Your task to perform on an android device: turn off smart reply in the gmail app Image 0: 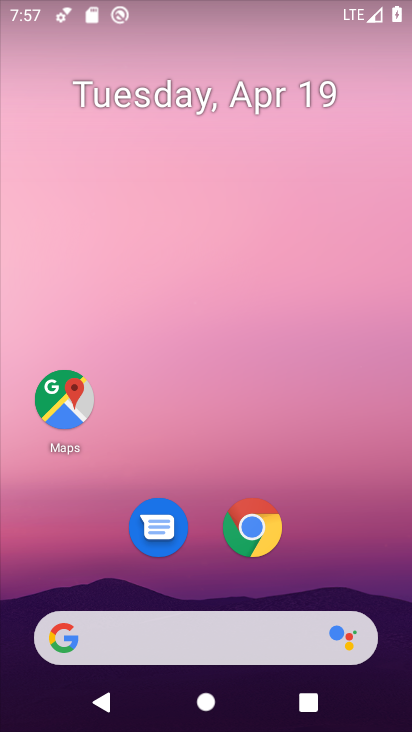
Step 0: drag from (376, 564) to (301, 89)
Your task to perform on an android device: turn off smart reply in the gmail app Image 1: 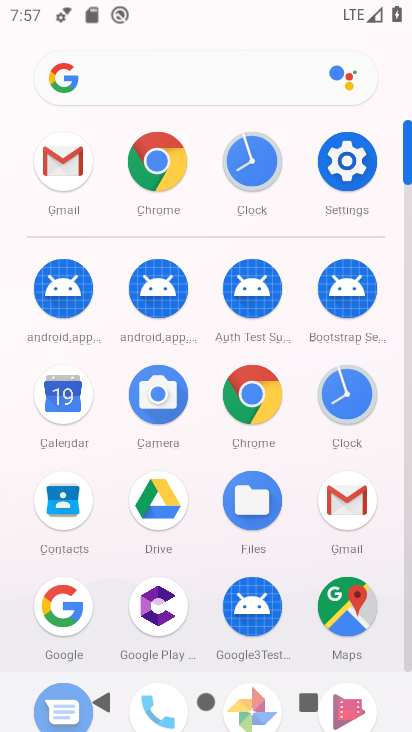
Step 1: click (347, 497)
Your task to perform on an android device: turn off smart reply in the gmail app Image 2: 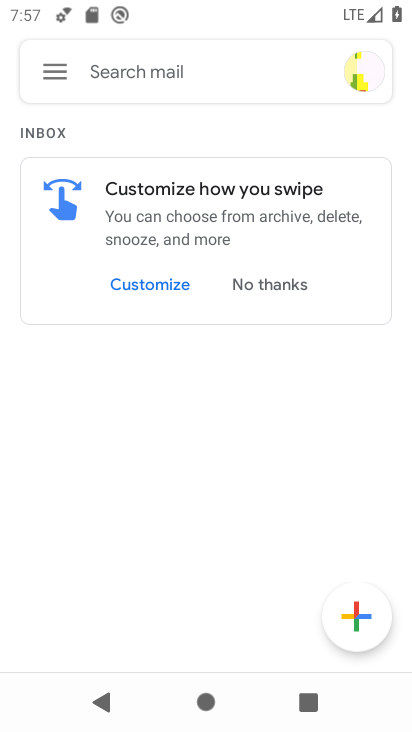
Step 2: click (40, 69)
Your task to perform on an android device: turn off smart reply in the gmail app Image 3: 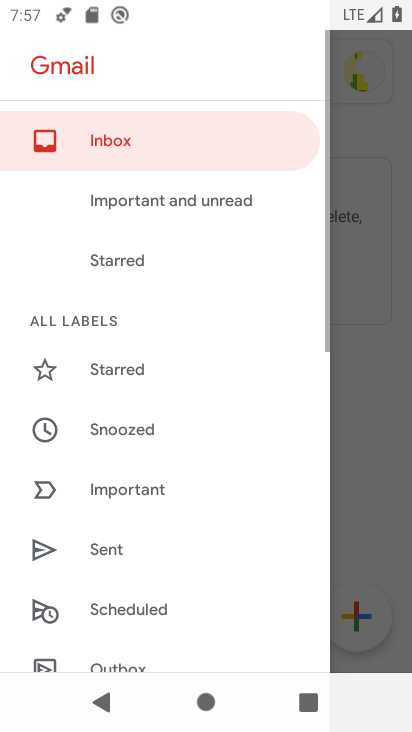
Step 3: drag from (193, 660) to (247, 221)
Your task to perform on an android device: turn off smart reply in the gmail app Image 4: 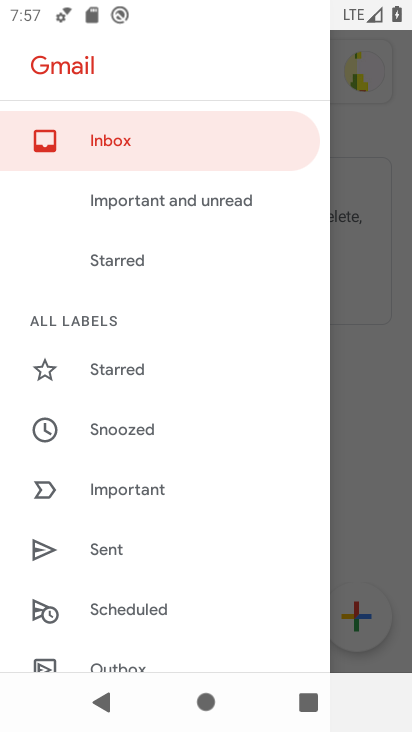
Step 4: drag from (261, 625) to (275, 260)
Your task to perform on an android device: turn off smart reply in the gmail app Image 5: 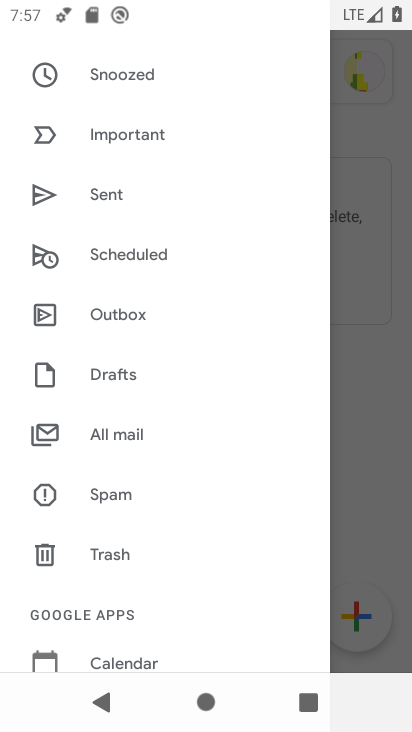
Step 5: drag from (216, 620) to (215, 297)
Your task to perform on an android device: turn off smart reply in the gmail app Image 6: 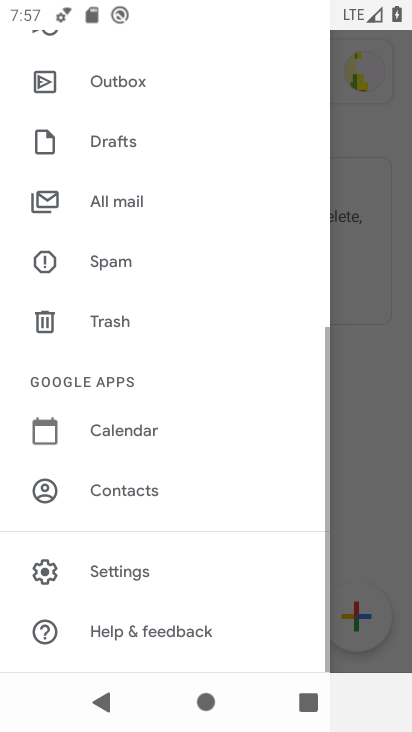
Step 6: click (142, 573)
Your task to perform on an android device: turn off smart reply in the gmail app Image 7: 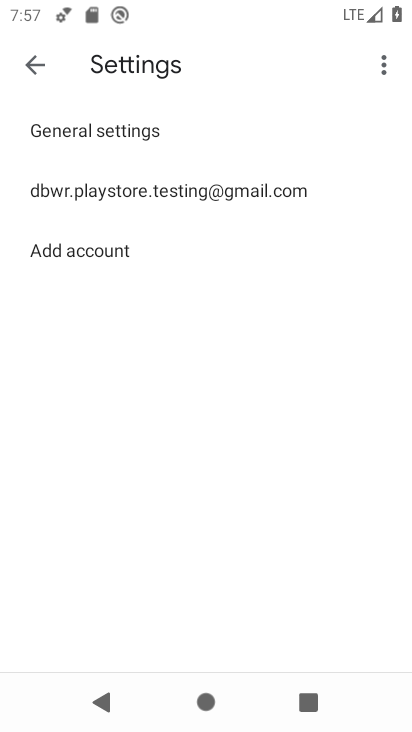
Step 7: click (252, 195)
Your task to perform on an android device: turn off smart reply in the gmail app Image 8: 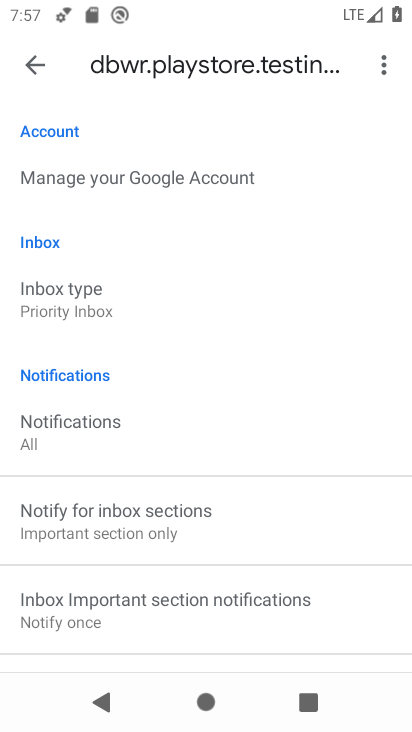
Step 8: drag from (355, 618) to (357, 229)
Your task to perform on an android device: turn off smart reply in the gmail app Image 9: 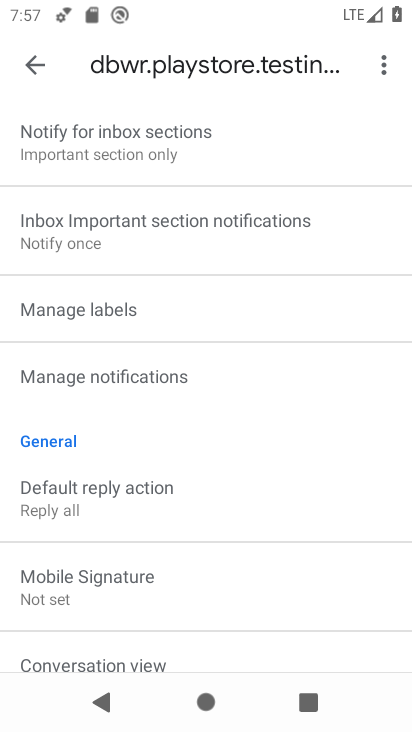
Step 9: drag from (290, 593) to (290, 157)
Your task to perform on an android device: turn off smart reply in the gmail app Image 10: 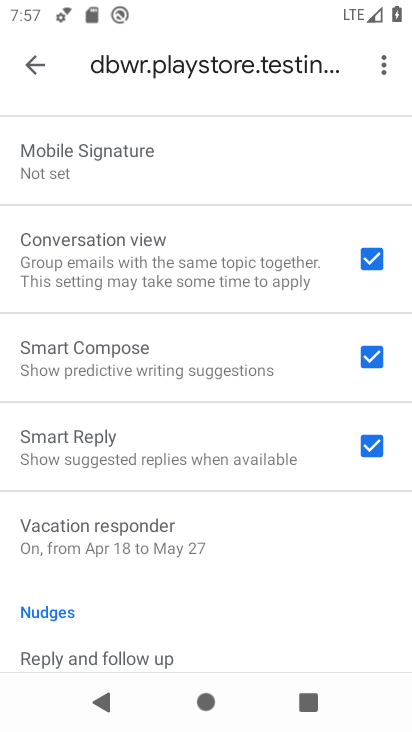
Step 10: click (377, 450)
Your task to perform on an android device: turn off smart reply in the gmail app Image 11: 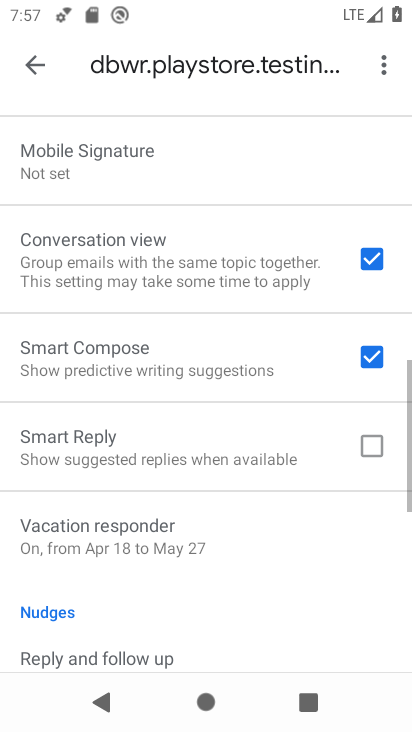
Step 11: task complete